Your task to perform on an android device: turn off priority inbox in the gmail app Image 0: 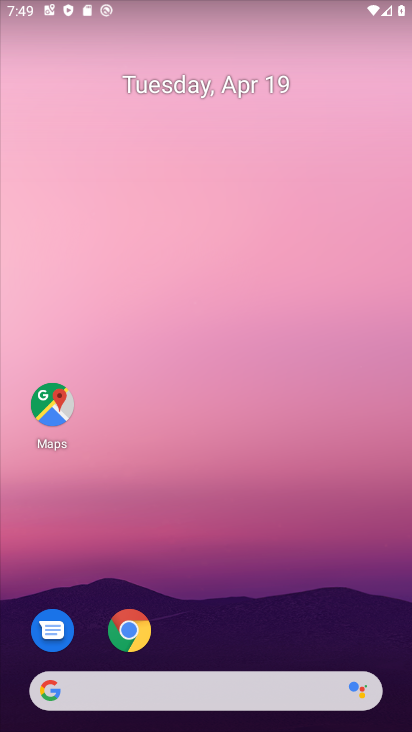
Step 0: drag from (243, 481) to (204, 10)
Your task to perform on an android device: turn off priority inbox in the gmail app Image 1: 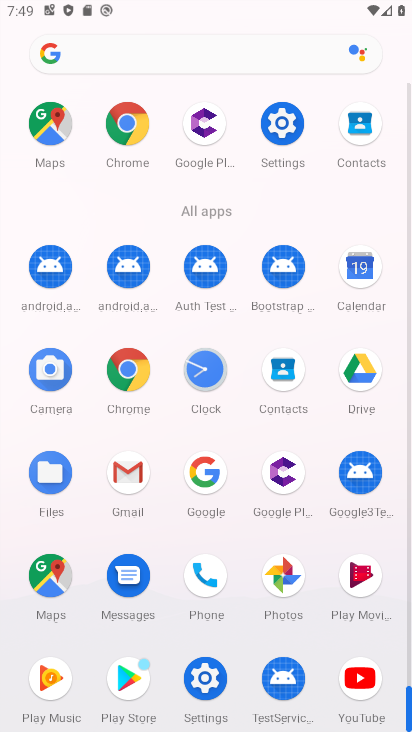
Step 1: drag from (7, 398) to (18, 246)
Your task to perform on an android device: turn off priority inbox in the gmail app Image 2: 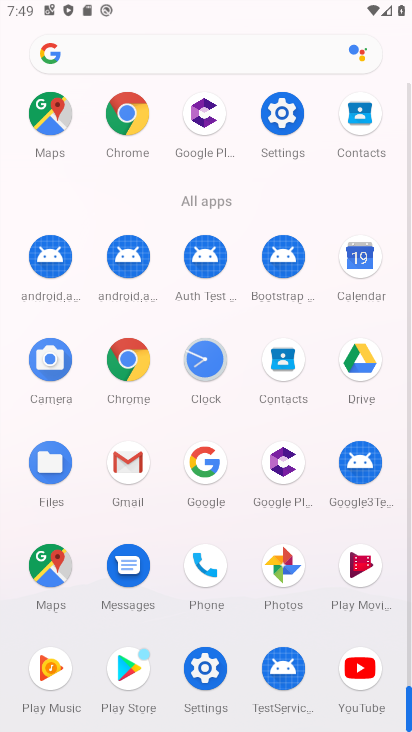
Step 2: click (129, 456)
Your task to perform on an android device: turn off priority inbox in the gmail app Image 3: 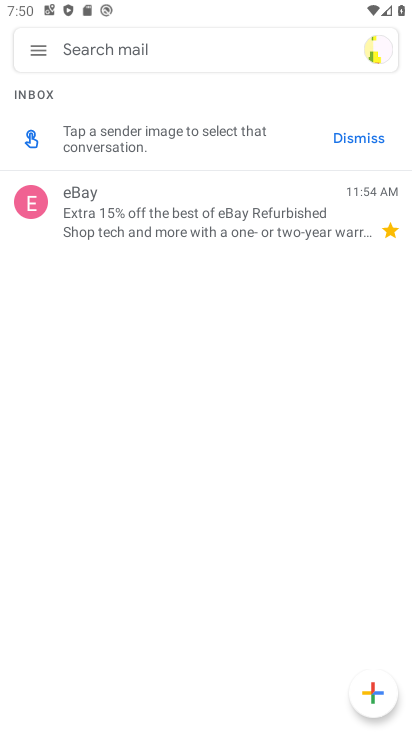
Step 3: click (47, 49)
Your task to perform on an android device: turn off priority inbox in the gmail app Image 4: 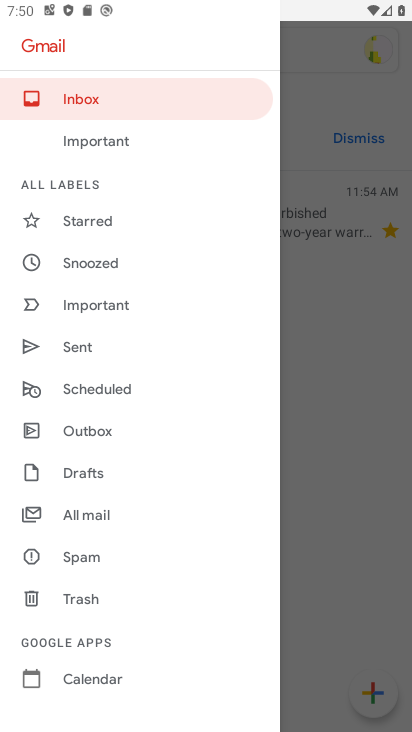
Step 4: drag from (123, 621) to (152, 185)
Your task to perform on an android device: turn off priority inbox in the gmail app Image 5: 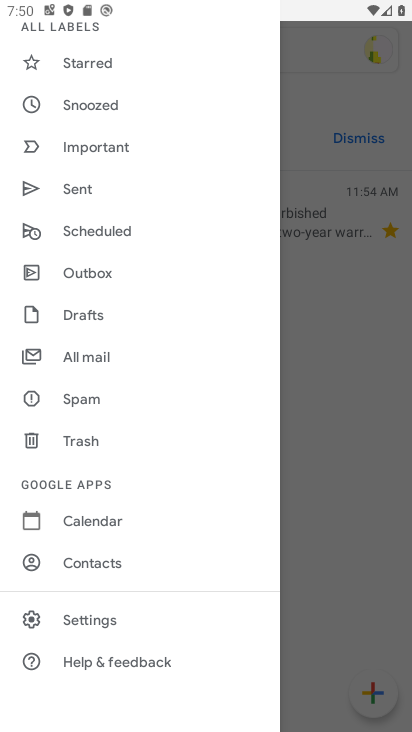
Step 5: click (107, 616)
Your task to perform on an android device: turn off priority inbox in the gmail app Image 6: 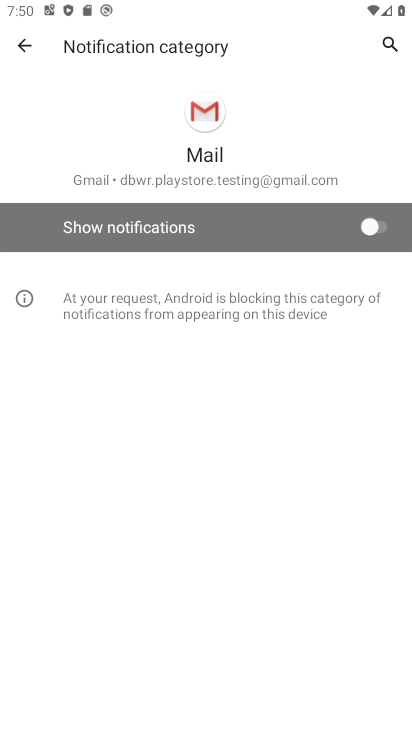
Step 6: click (16, 42)
Your task to perform on an android device: turn off priority inbox in the gmail app Image 7: 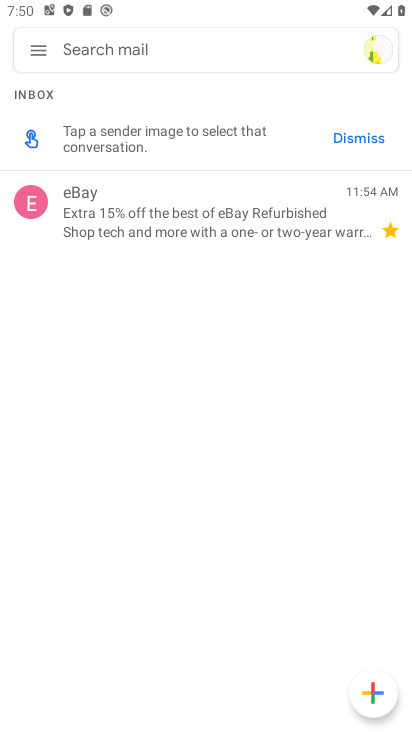
Step 7: click (44, 39)
Your task to perform on an android device: turn off priority inbox in the gmail app Image 8: 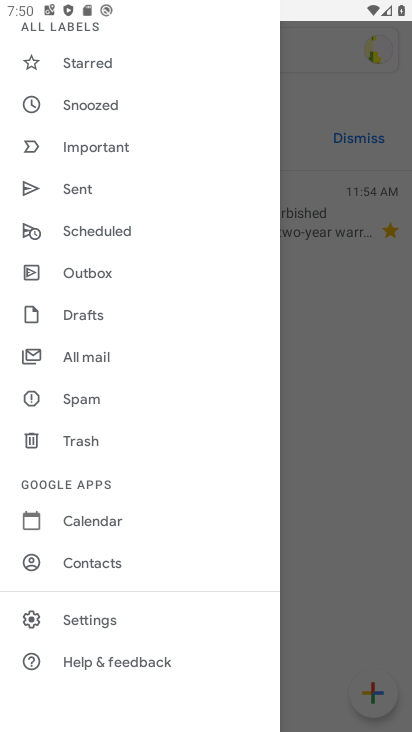
Step 8: click (96, 610)
Your task to perform on an android device: turn off priority inbox in the gmail app Image 9: 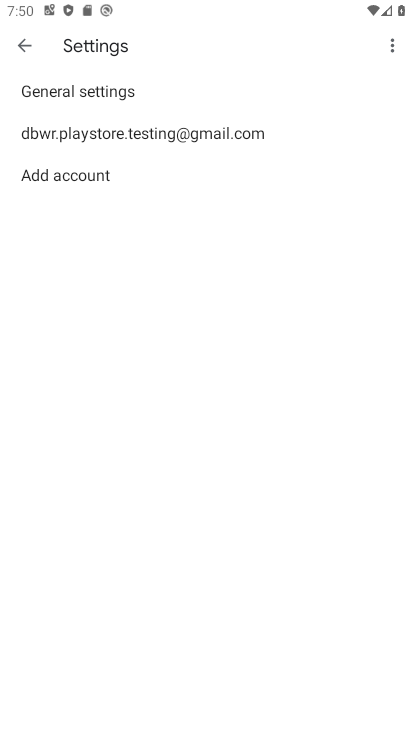
Step 9: click (122, 133)
Your task to perform on an android device: turn off priority inbox in the gmail app Image 10: 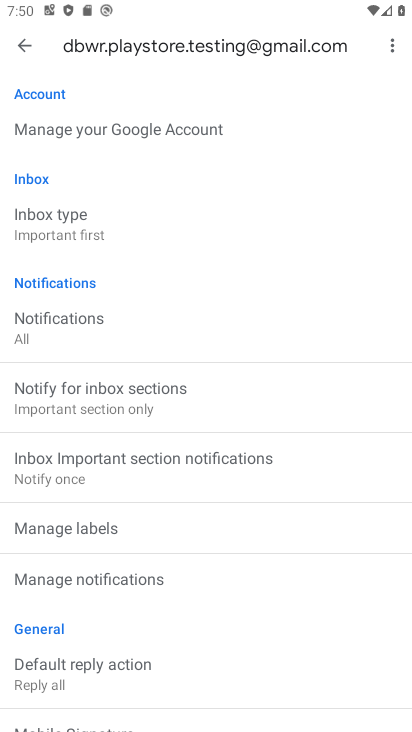
Step 10: click (111, 222)
Your task to perform on an android device: turn off priority inbox in the gmail app Image 11: 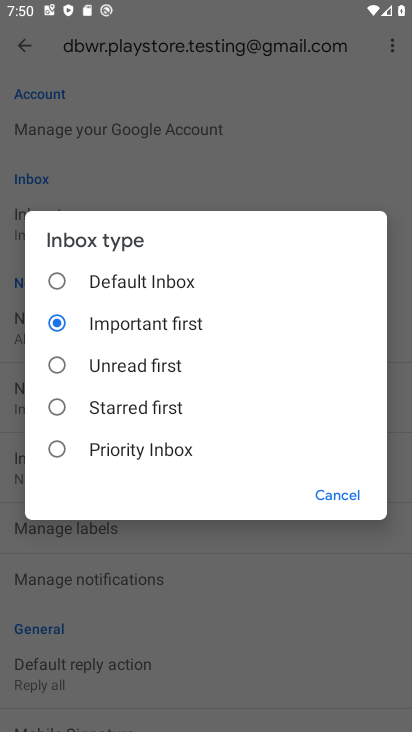
Step 11: click (121, 438)
Your task to perform on an android device: turn off priority inbox in the gmail app Image 12: 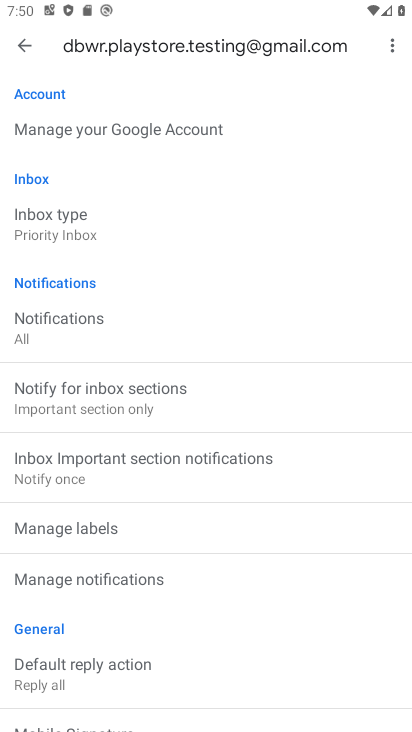
Step 12: task complete